Your task to perform on an android device: find which apps use the phone's location Image 0: 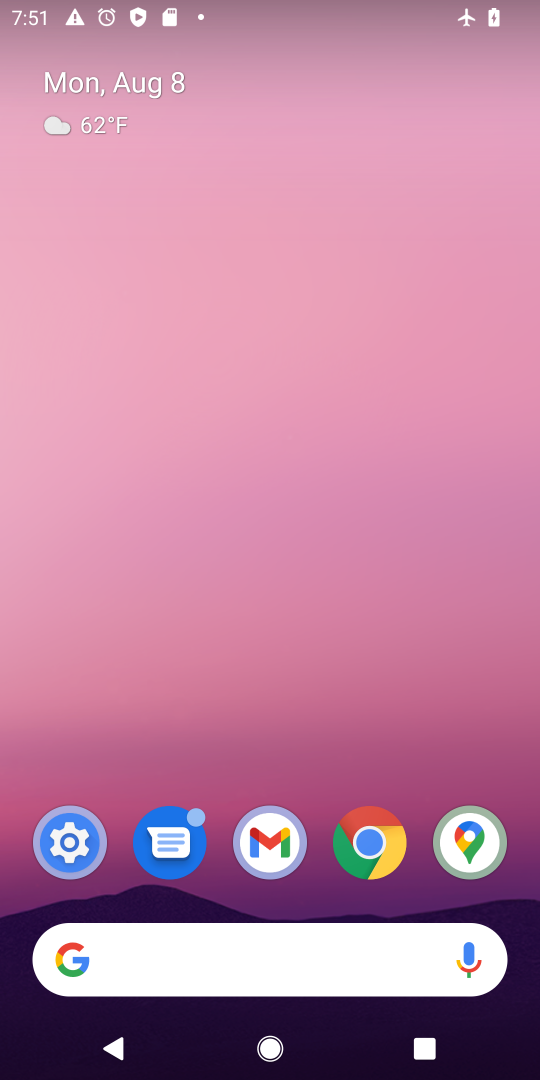
Step 0: click (66, 839)
Your task to perform on an android device: find which apps use the phone's location Image 1: 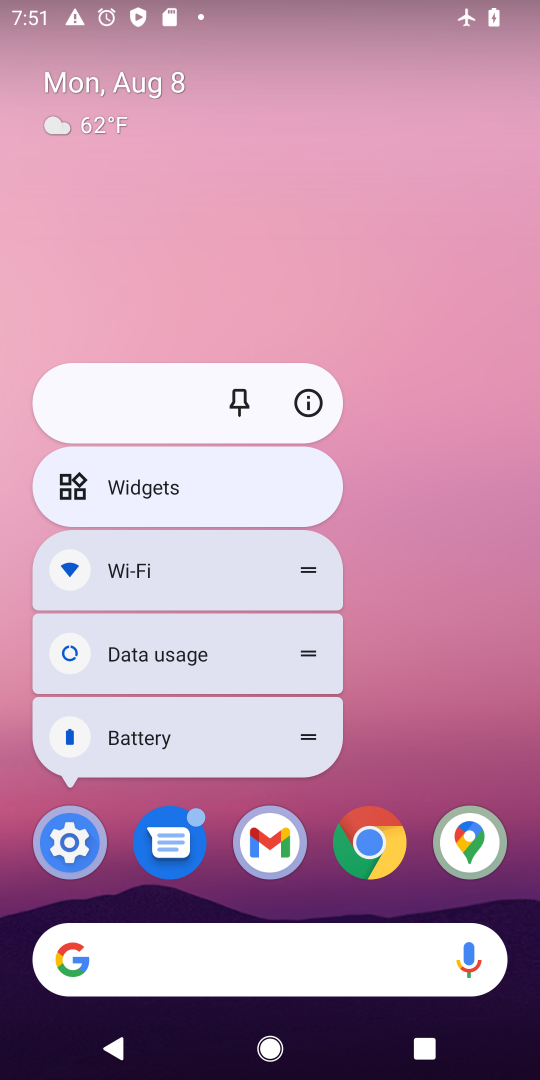
Step 1: click (70, 825)
Your task to perform on an android device: find which apps use the phone's location Image 2: 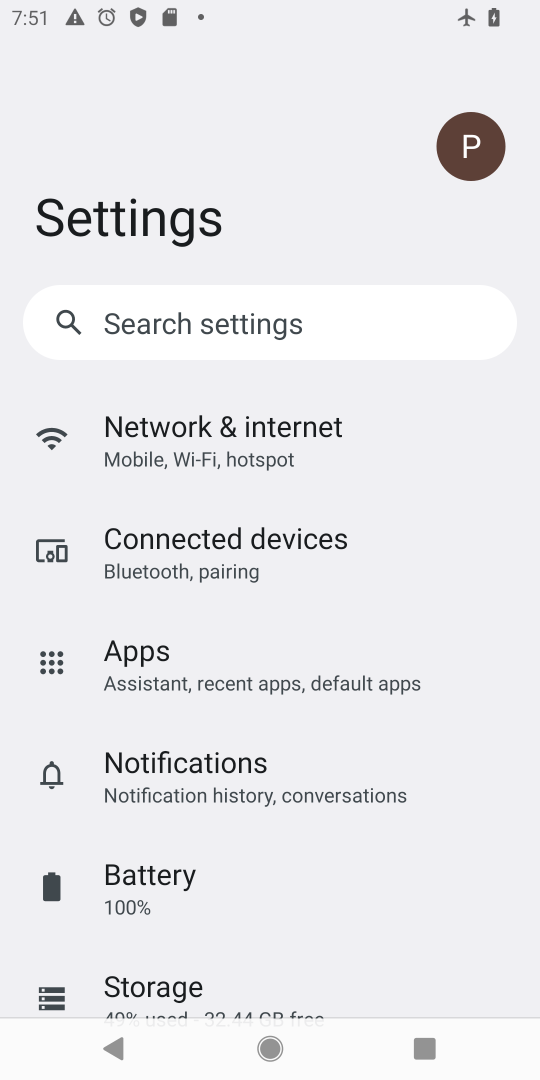
Step 2: drag from (367, 942) to (391, 288)
Your task to perform on an android device: find which apps use the phone's location Image 3: 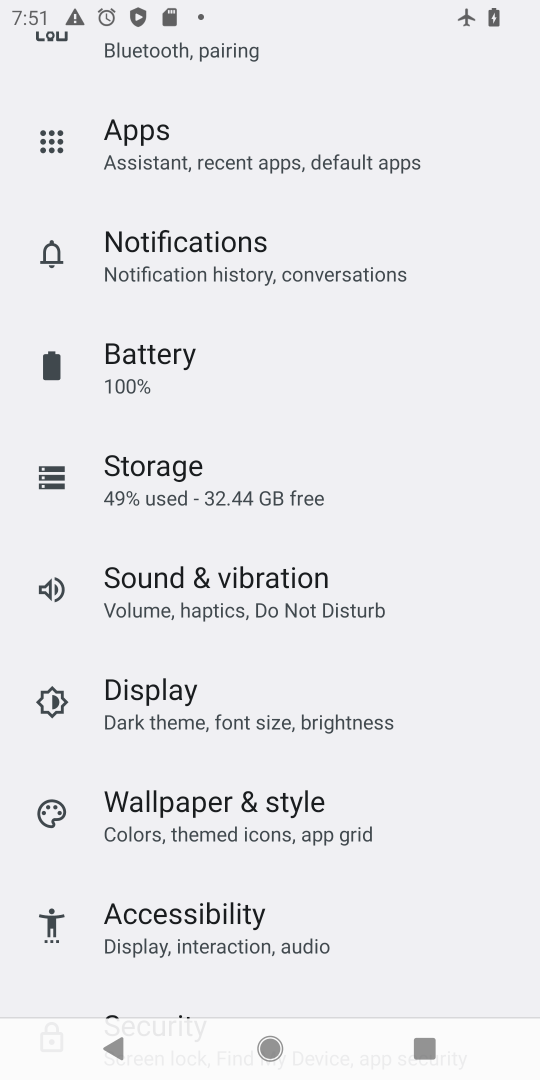
Step 3: drag from (194, 944) to (335, 402)
Your task to perform on an android device: find which apps use the phone's location Image 4: 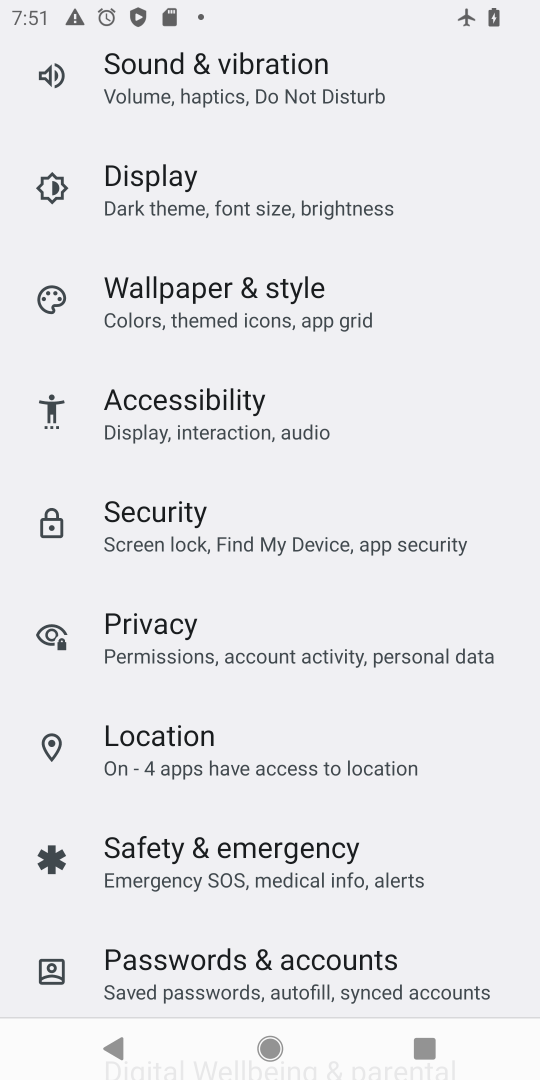
Step 4: click (199, 748)
Your task to perform on an android device: find which apps use the phone's location Image 5: 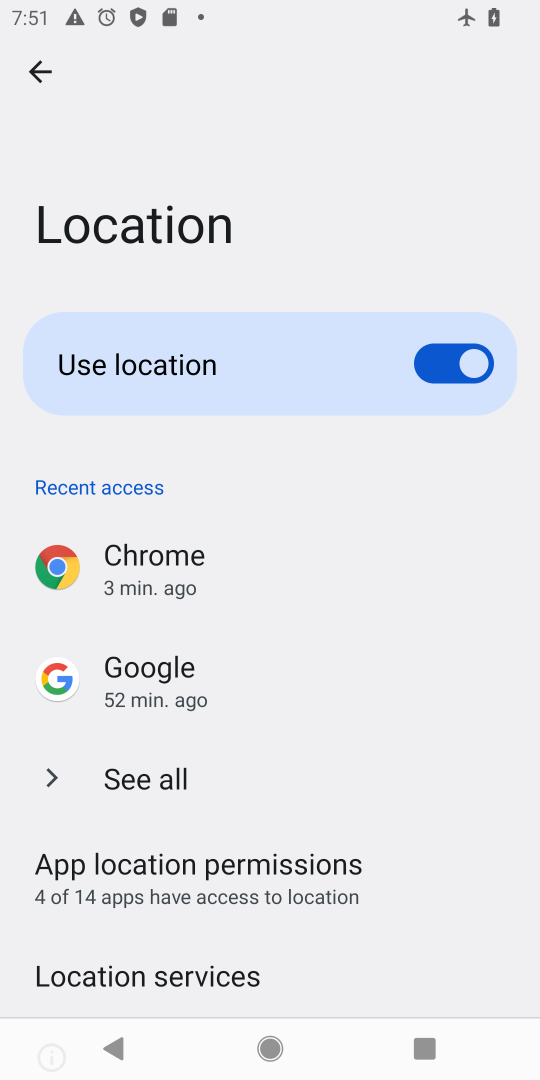
Step 5: click (115, 872)
Your task to perform on an android device: find which apps use the phone's location Image 6: 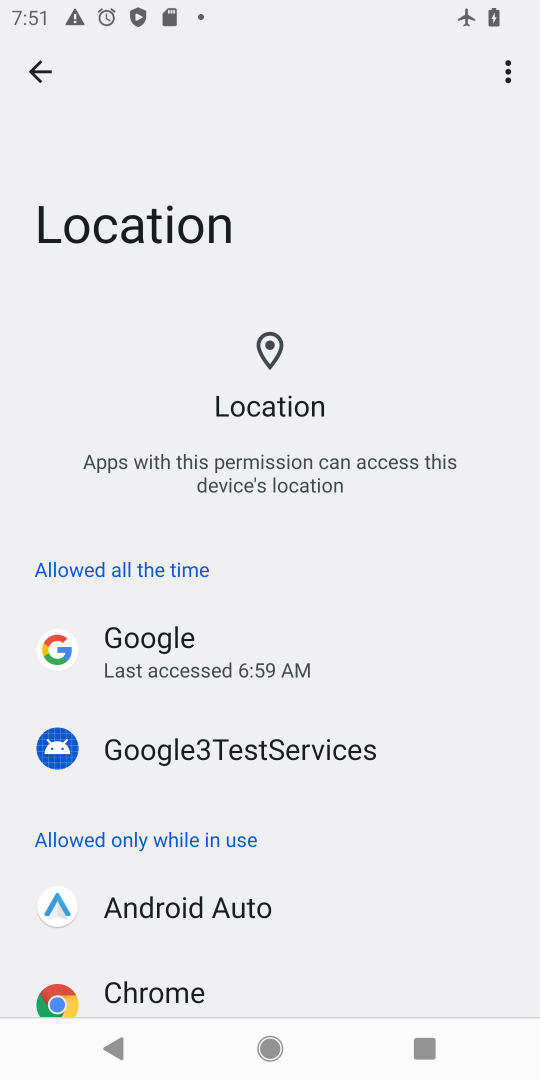
Step 6: task complete